Your task to perform on an android device: Clear the cart on bestbuy.com. Image 0: 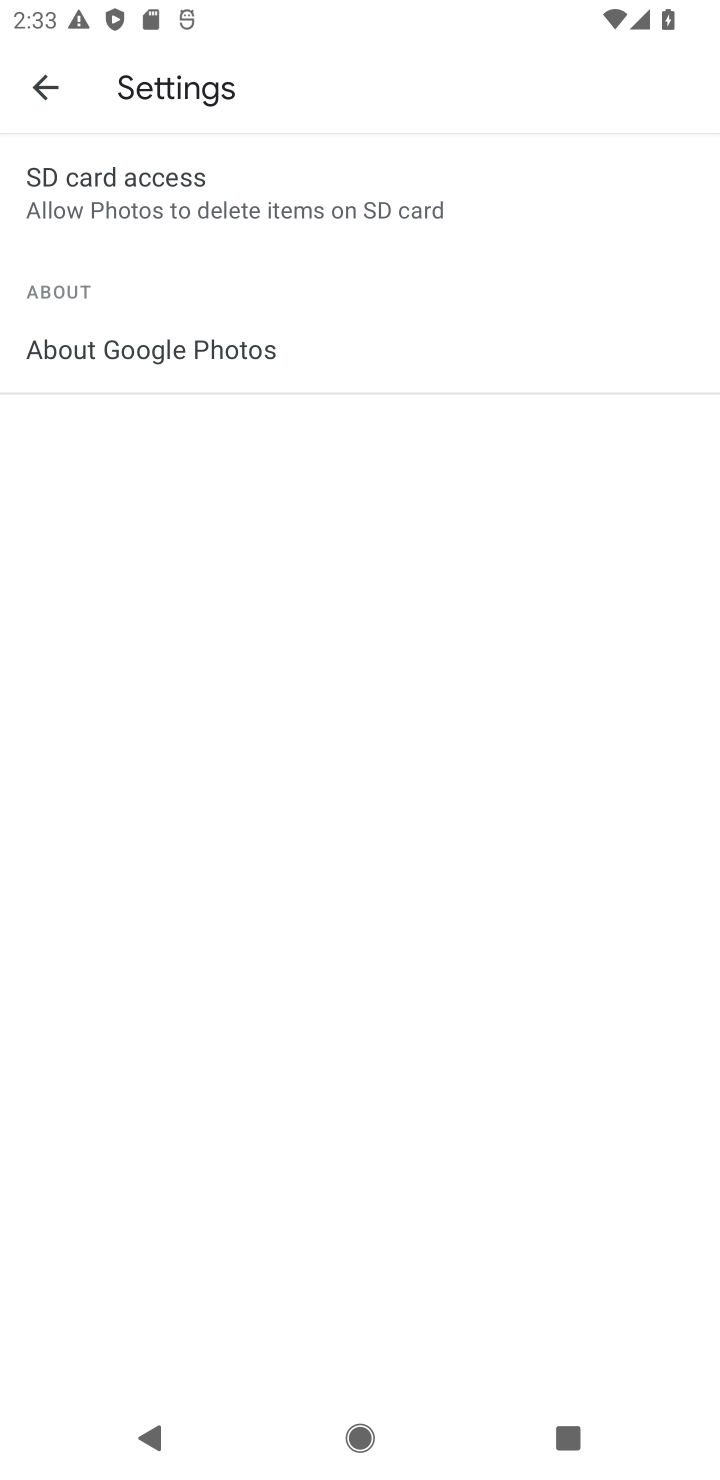
Step 0: press home button
Your task to perform on an android device: Clear the cart on bestbuy.com. Image 1: 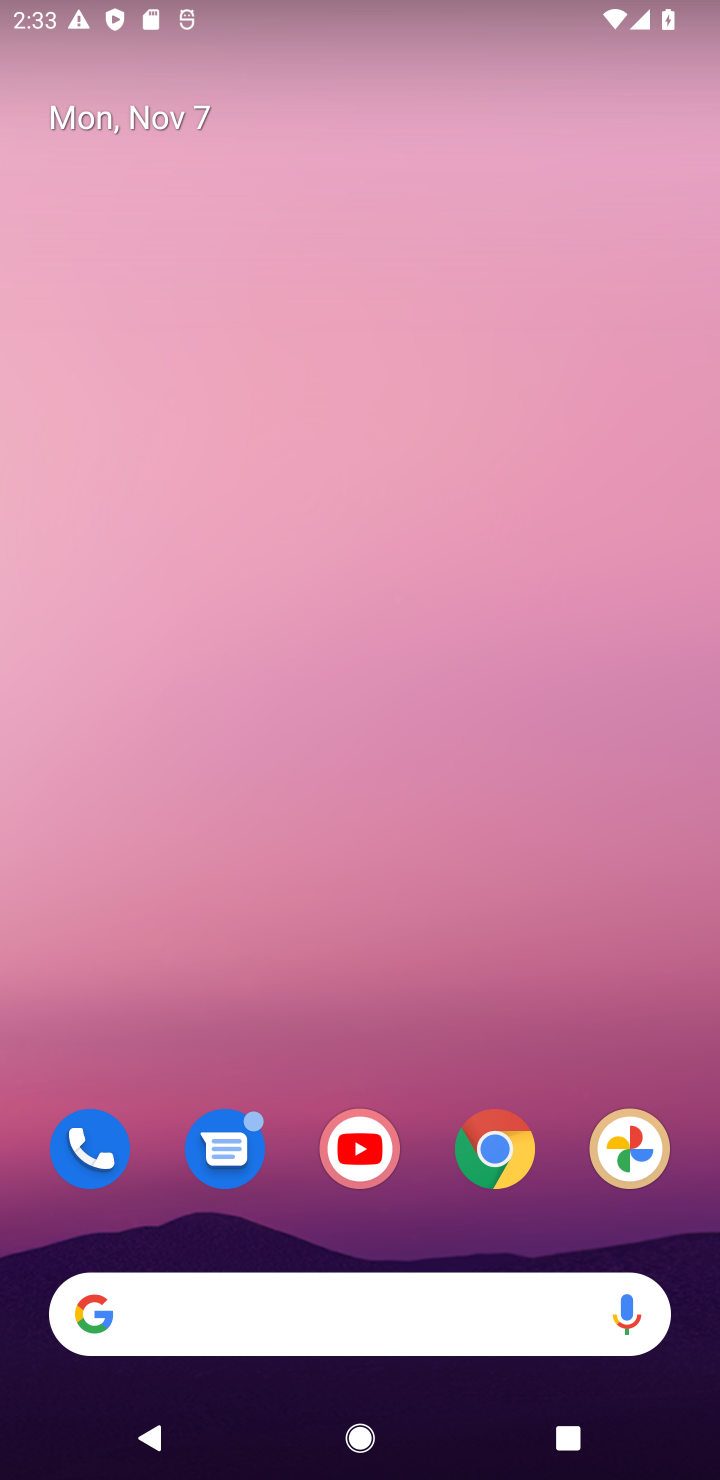
Step 1: click (490, 1137)
Your task to perform on an android device: Clear the cart on bestbuy.com. Image 2: 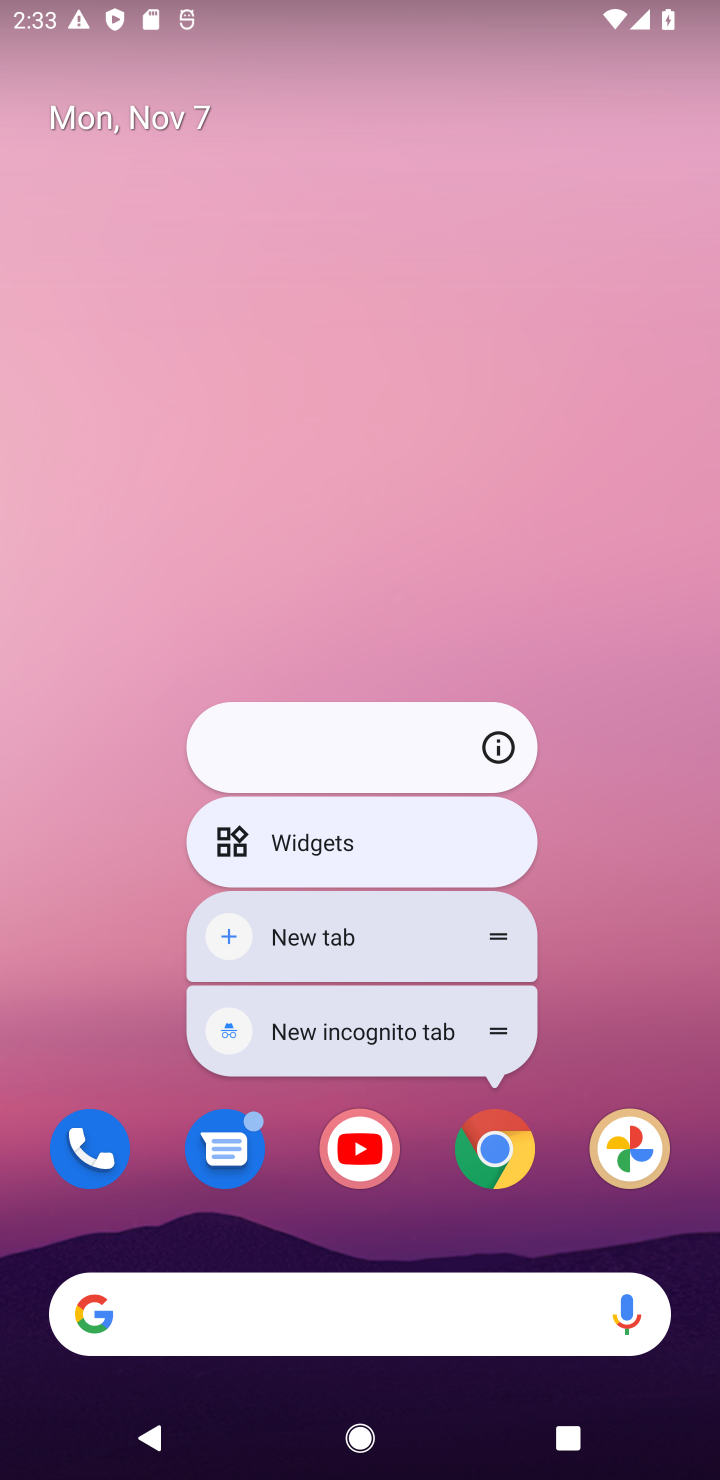
Step 2: click (499, 1137)
Your task to perform on an android device: Clear the cart on bestbuy.com. Image 3: 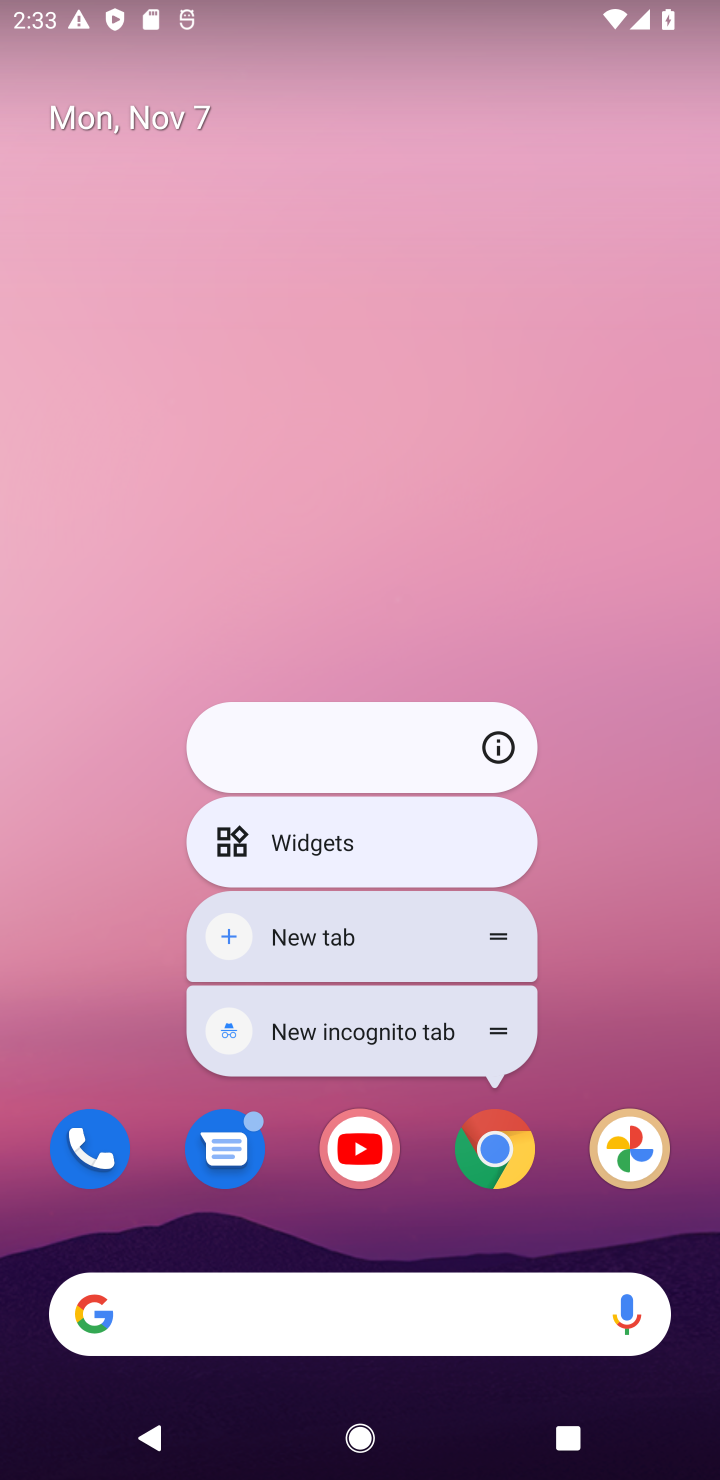
Step 3: click (505, 1139)
Your task to perform on an android device: Clear the cart on bestbuy.com. Image 4: 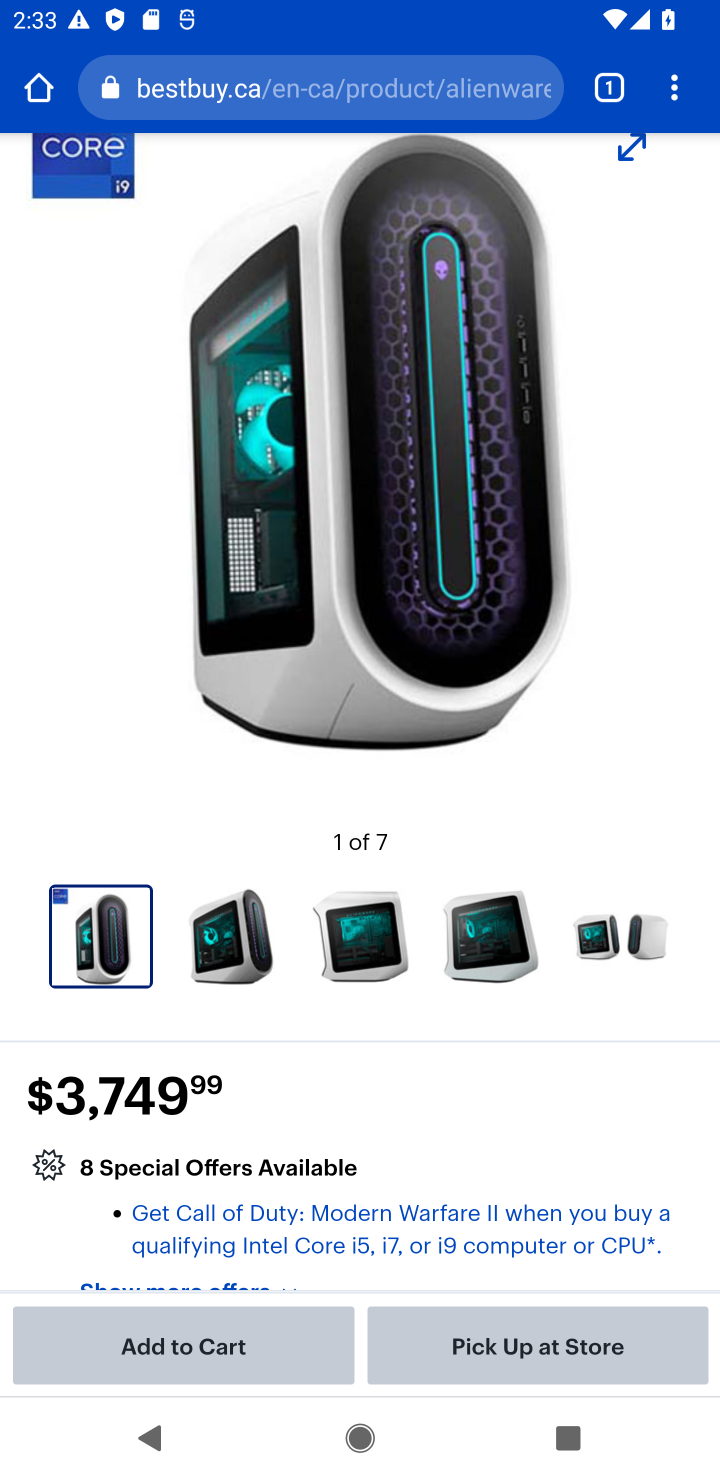
Step 4: click (216, 80)
Your task to perform on an android device: Clear the cart on bestbuy.com. Image 5: 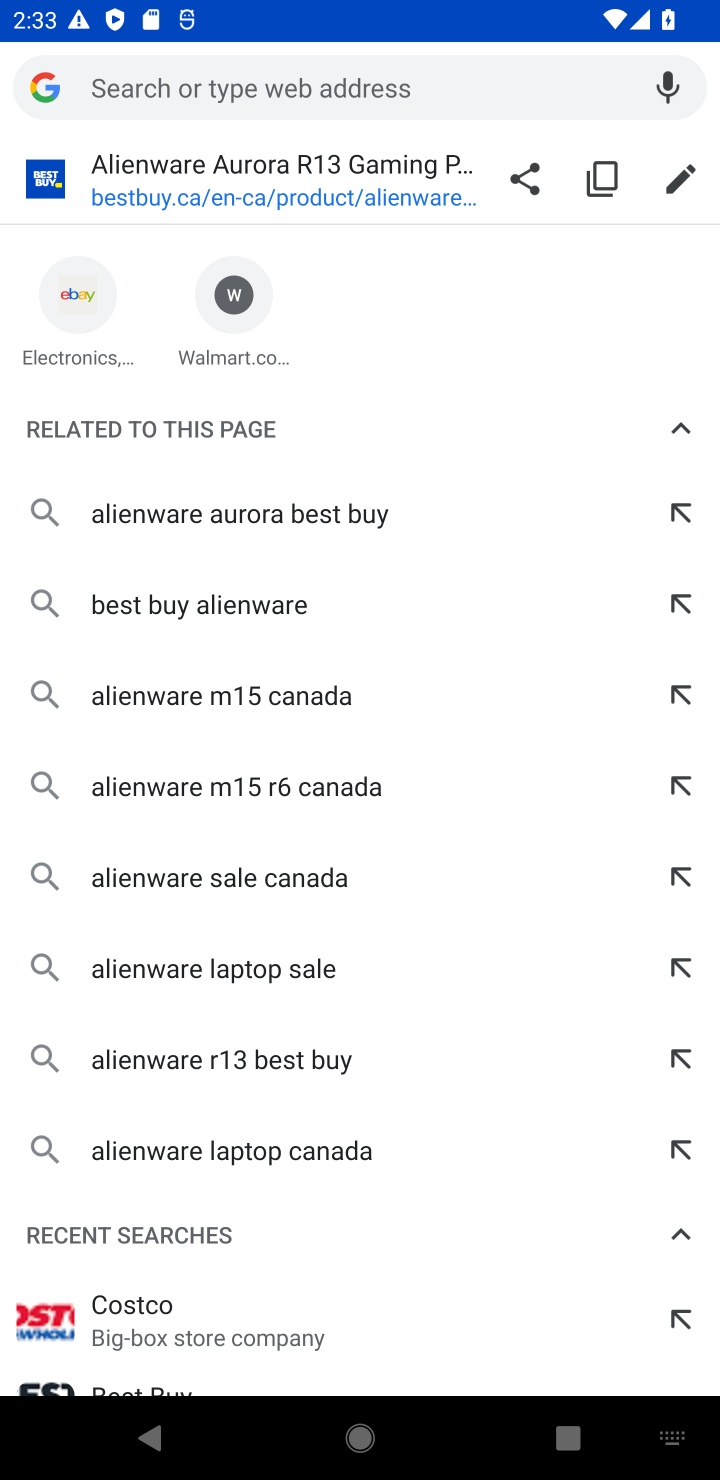
Step 5: type "bestbuy"
Your task to perform on an android device: Clear the cart on bestbuy.com. Image 6: 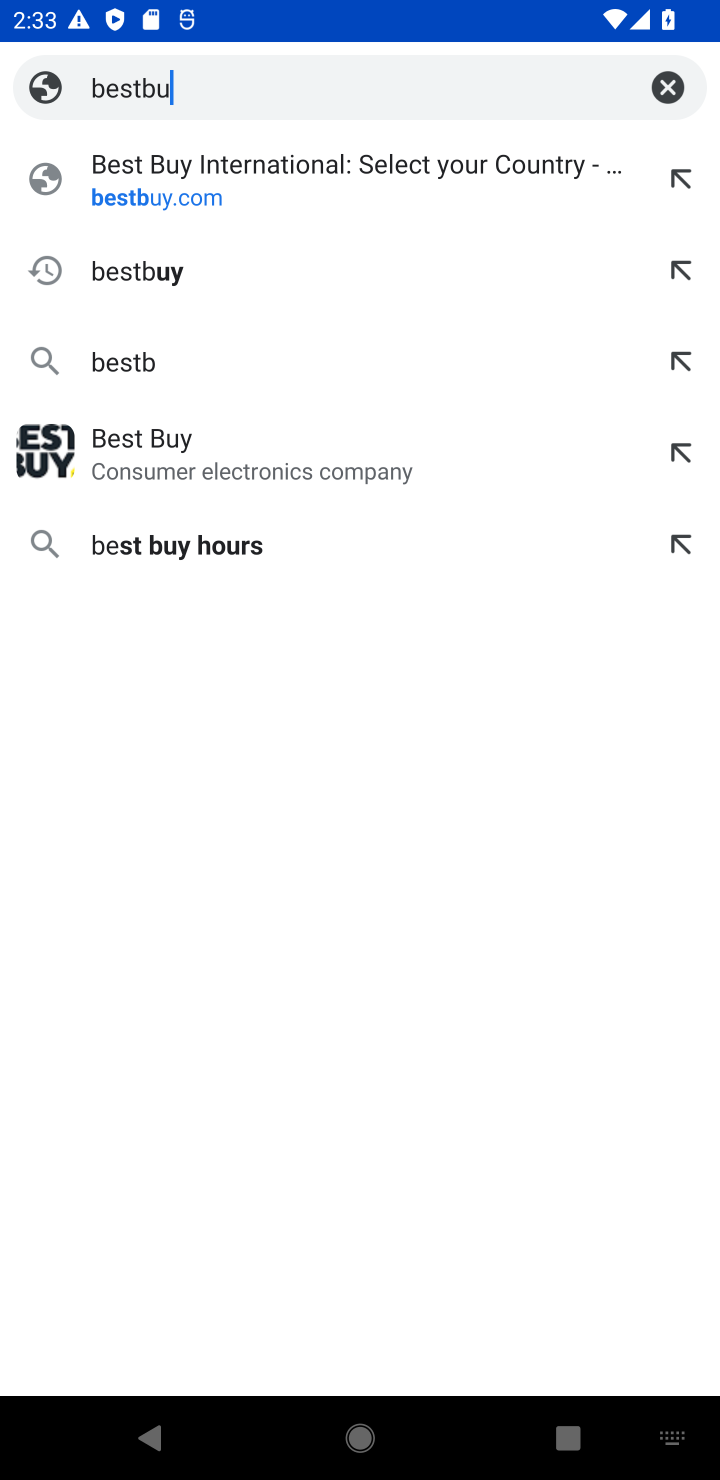
Step 6: type ""
Your task to perform on an android device: Clear the cart on bestbuy.com. Image 7: 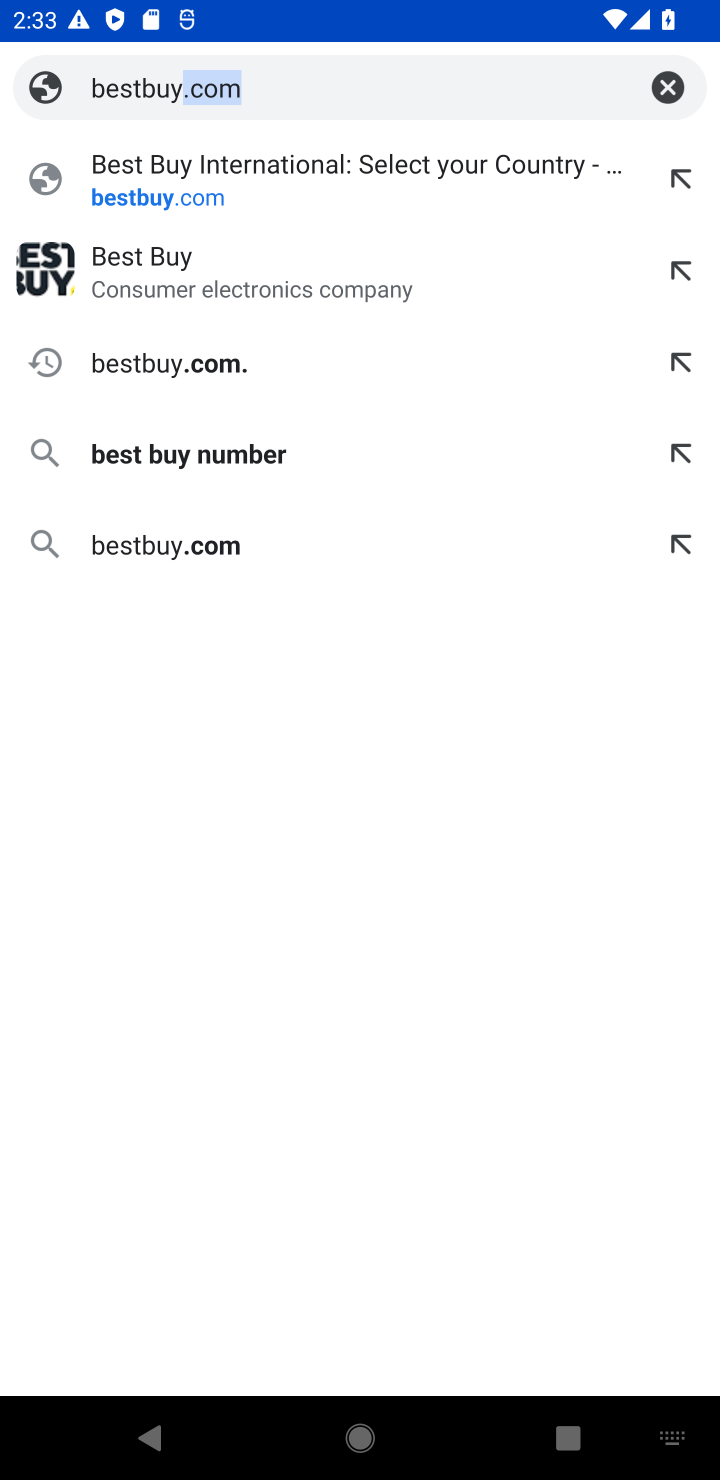
Step 7: click (96, 231)
Your task to perform on an android device: Clear the cart on bestbuy.com. Image 8: 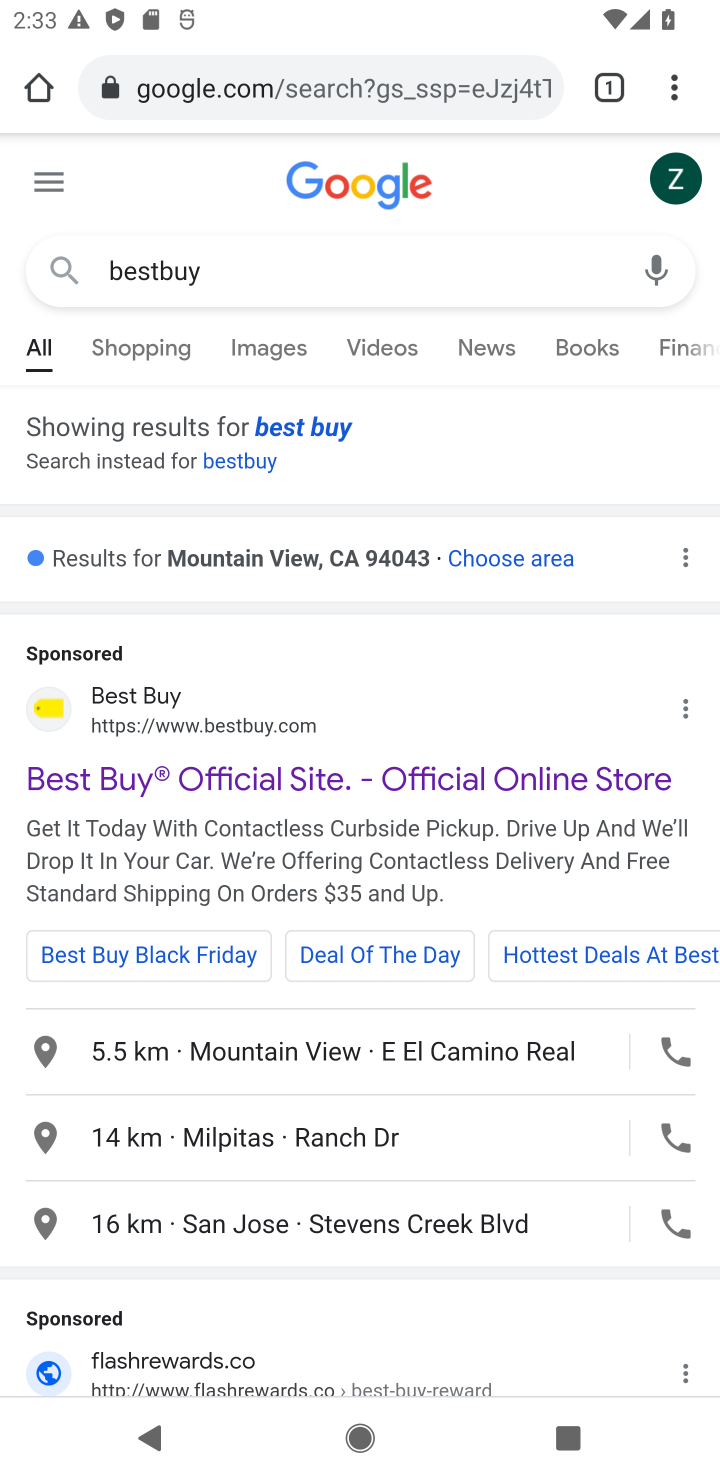
Step 8: click (49, 786)
Your task to perform on an android device: Clear the cart on bestbuy.com. Image 9: 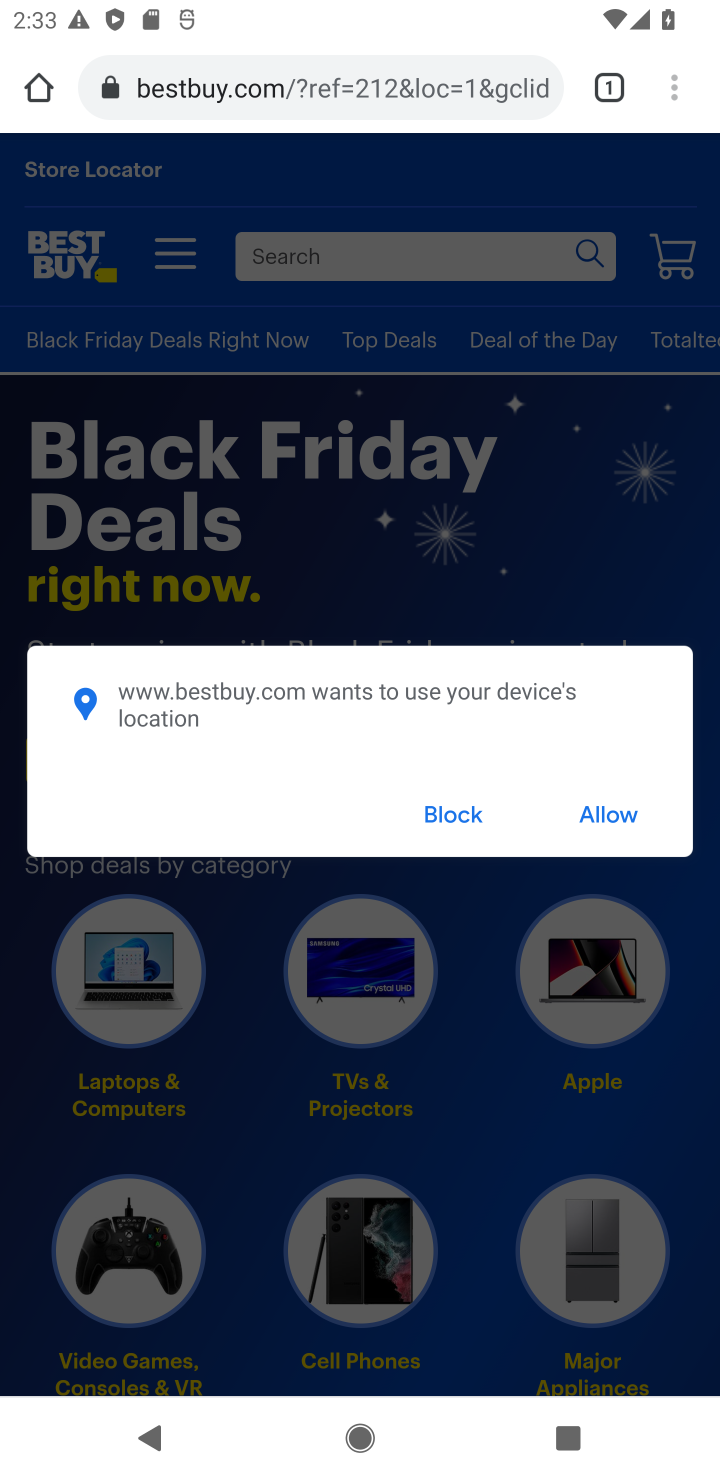
Step 9: click (685, 267)
Your task to perform on an android device: Clear the cart on bestbuy.com. Image 10: 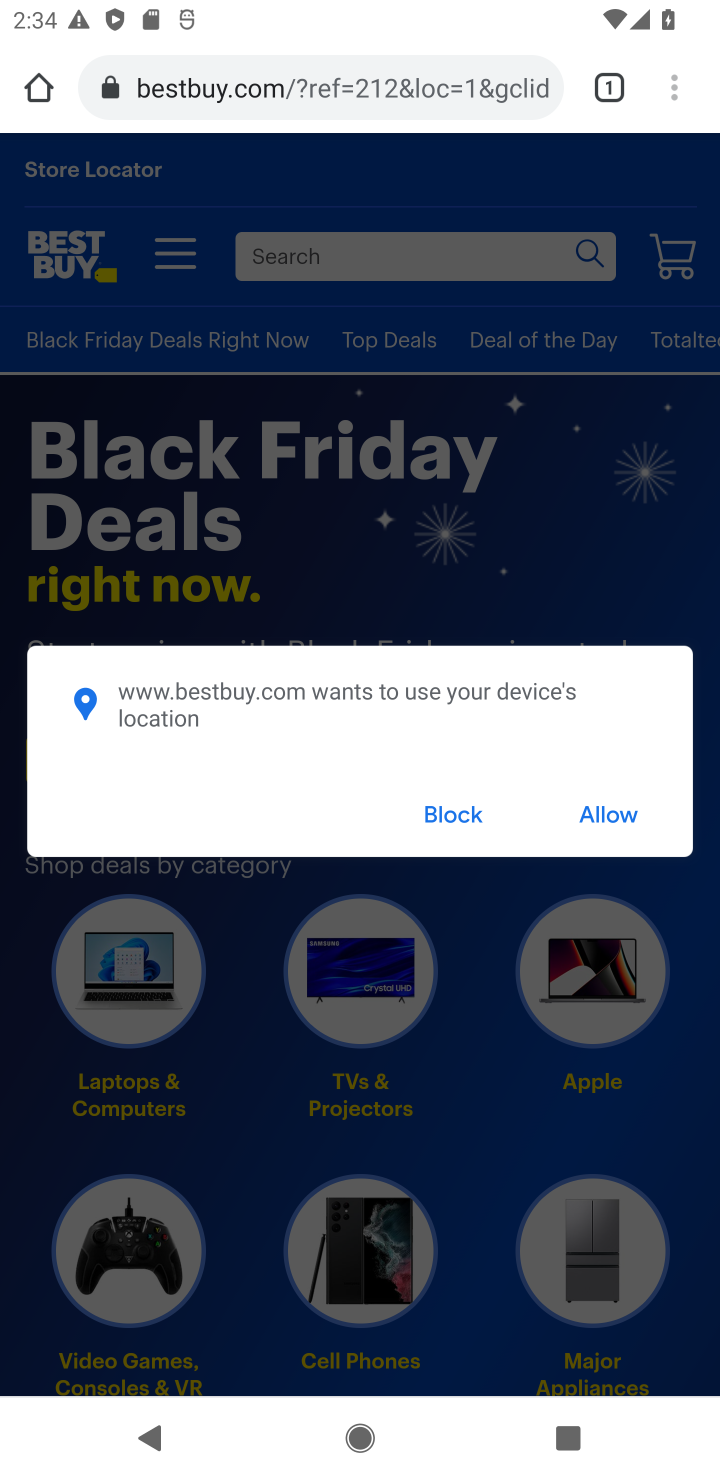
Step 10: click (602, 807)
Your task to perform on an android device: Clear the cart on bestbuy.com. Image 11: 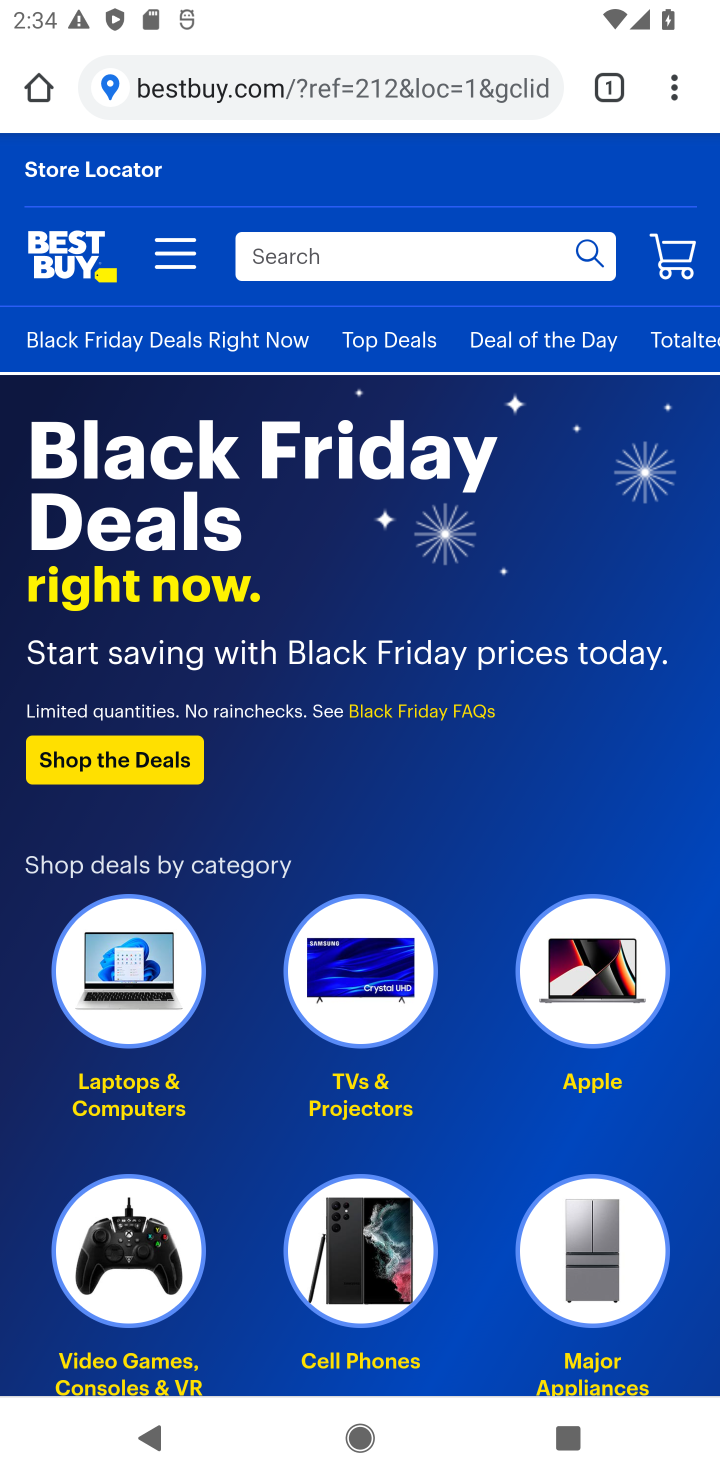
Step 11: click (695, 259)
Your task to perform on an android device: Clear the cart on bestbuy.com. Image 12: 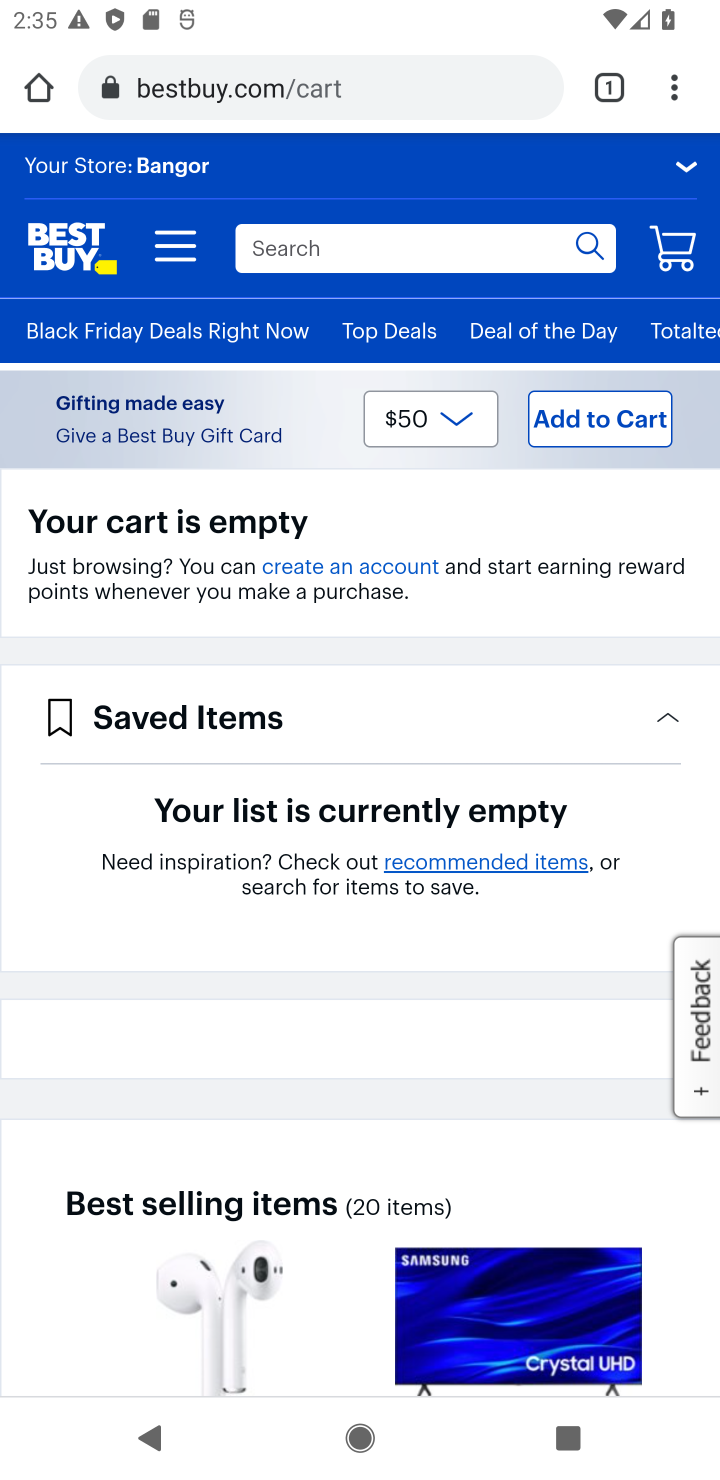
Step 12: task complete